Your task to perform on an android device: What's the weather? Image 0: 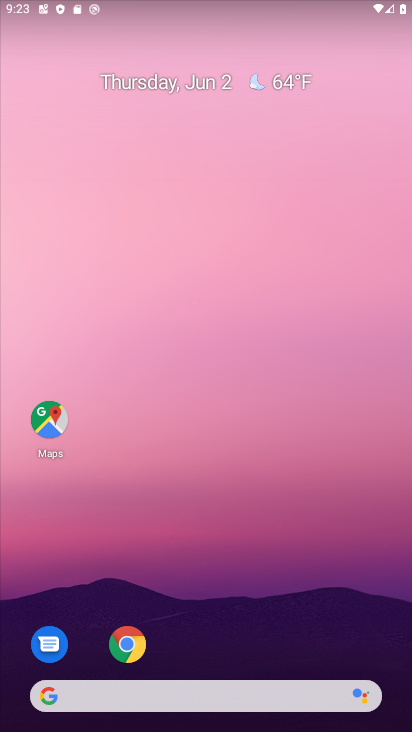
Step 0: press home button
Your task to perform on an android device: What's the weather? Image 1: 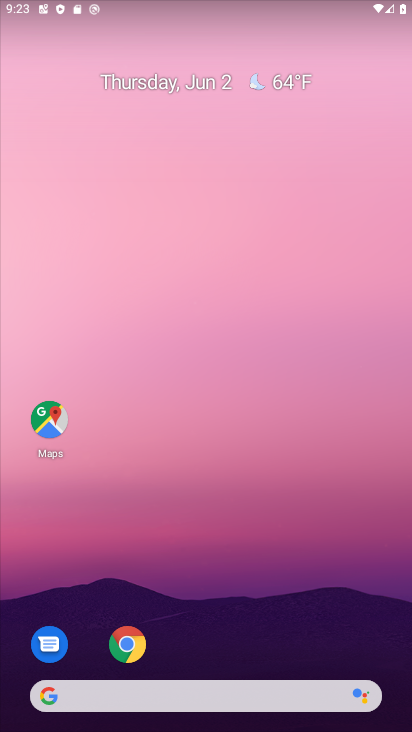
Step 1: click (67, 719)
Your task to perform on an android device: What's the weather? Image 2: 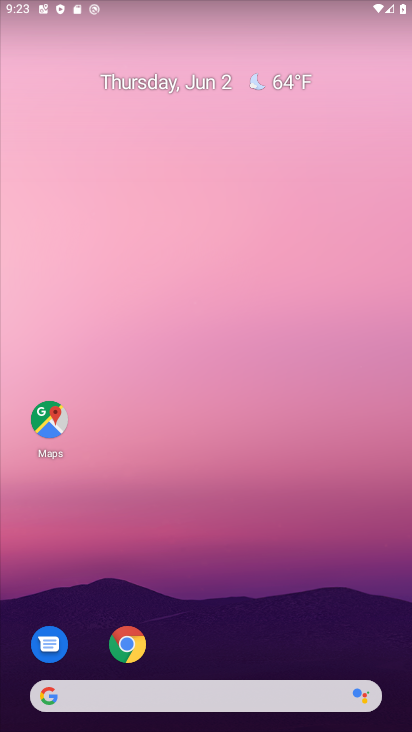
Step 2: click (133, 672)
Your task to perform on an android device: What's the weather? Image 3: 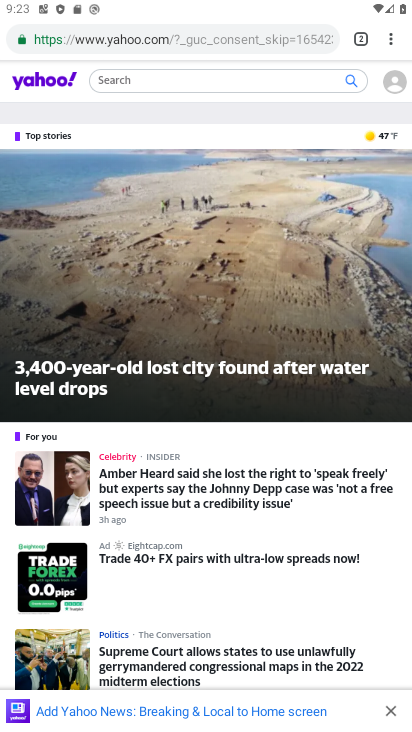
Step 3: click (280, 35)
Your task to perform on an android device: What's the weather? Image 4: 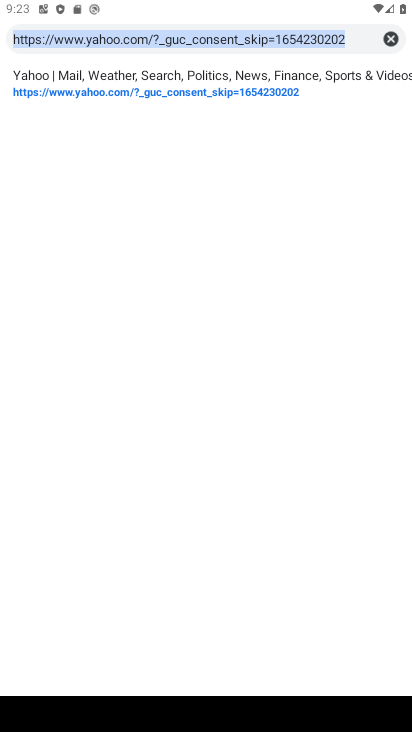
Step 4: click (392, 33)
Your task to perform on an android device: What's the weather? Image 5: 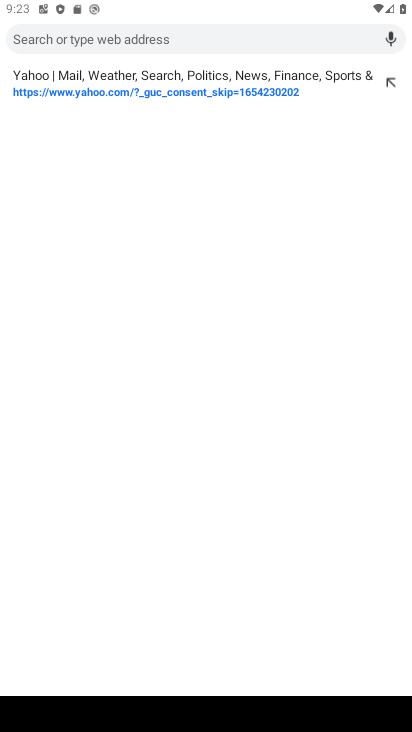
Step 5: type "What's the weather?"
Your task to perform on an android device: What's the weather? Image 6: 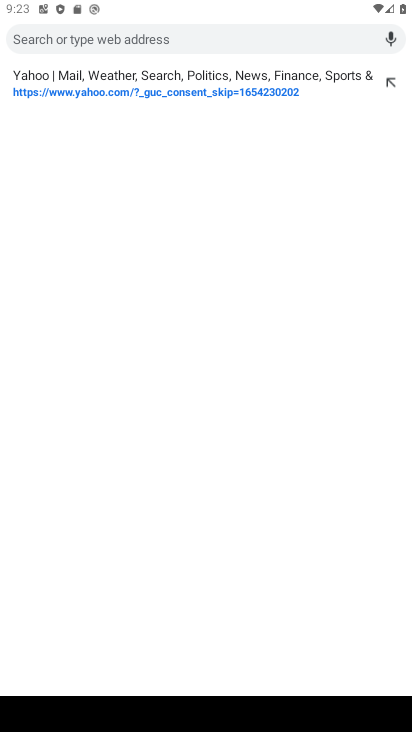
Step 6: click (355, 86)
Your task to perform on an android device: What's the weather? Image 7: 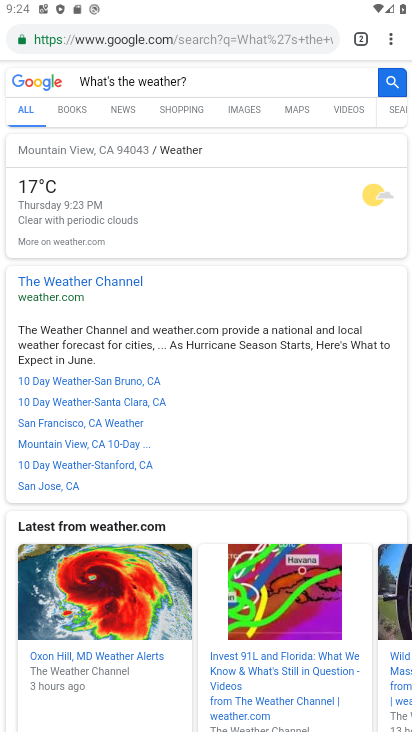
Step 7: task complete